Your task to perform on an android device: Open location settings Image 0: 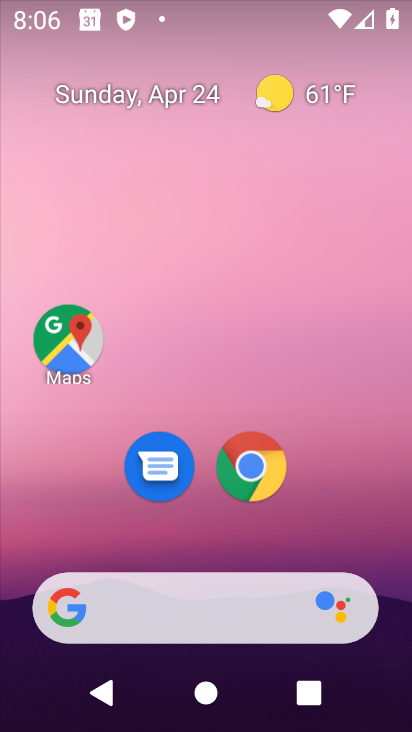
Step 0: drag from (201, 509) to (242, 1)
Your task to perform on an android device: Open location settings Image 1: 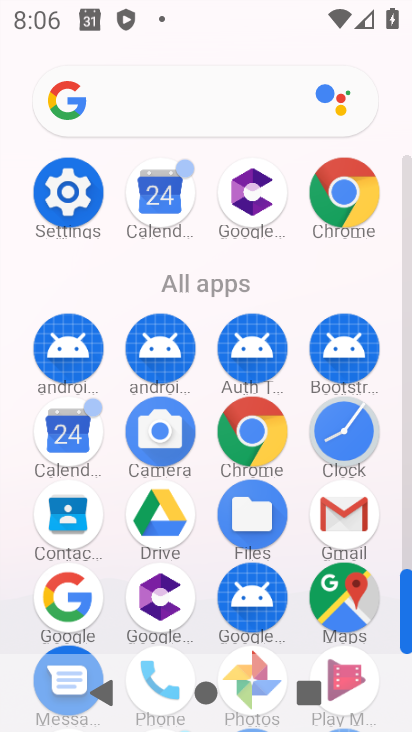
Step 1: click (49, 203)
Your task to perform on an android device: Open location settings Image 2: 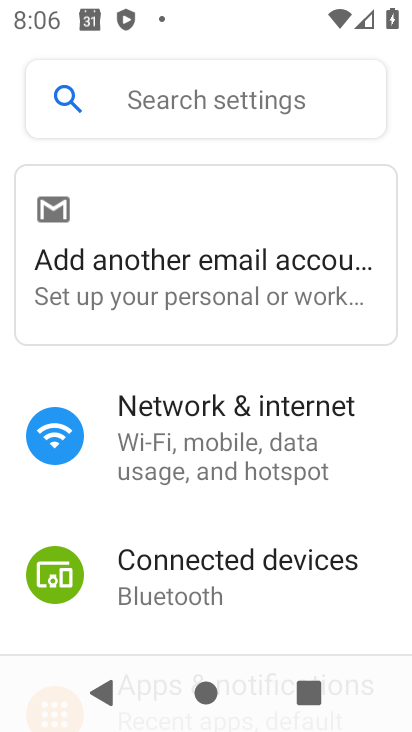
Step 2: drag from (177, 546) to (284, 5)
Your task to perform on an android device: Open location settings Image 3: 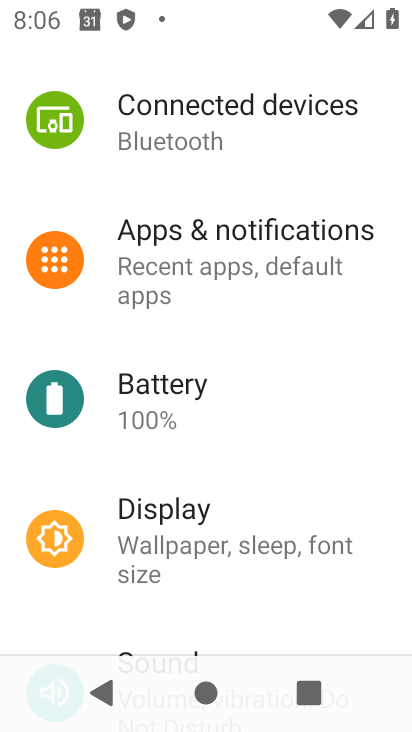
Step 3: drag from (169, 575) to (200, 32)
Your task to perform on an android device: Open location settings Image 4: 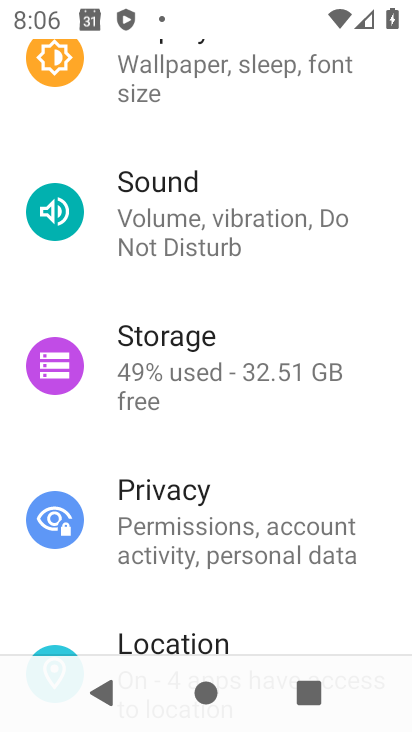
Step 4: drag from (144, 581) to (195, 174)
Your task to perform on an android device: Open location settings Image 5: 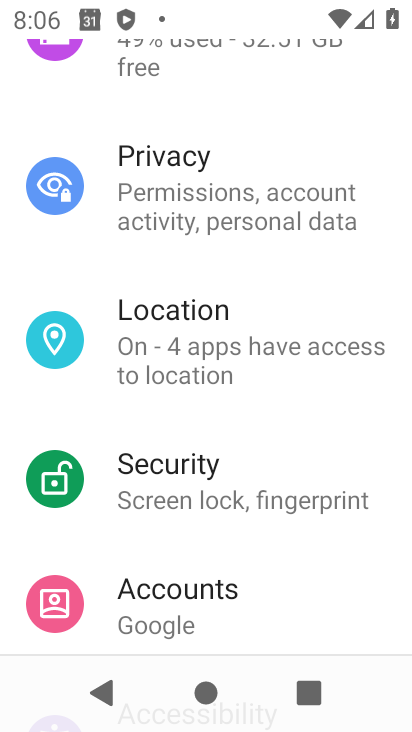
Step 5: click (166, 366)
Your task to perform on an android device: Open location settings Image 6: 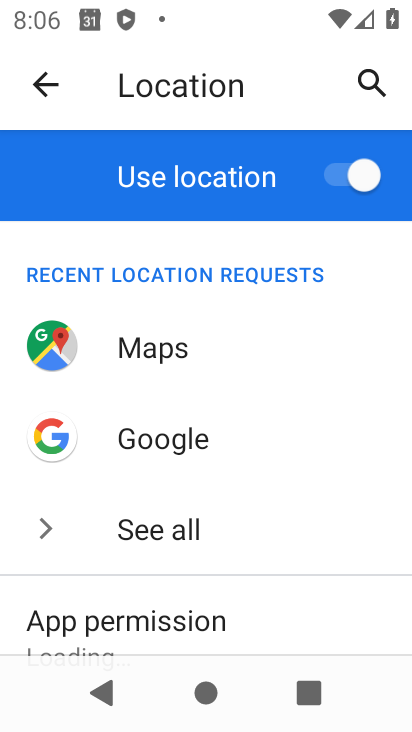
Step 6: task complete